Your task to perform on an android device: clear history in the chrome app Image 0: 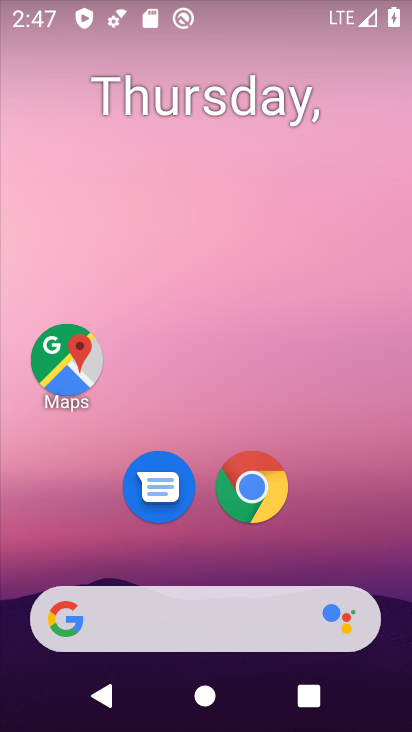
Step 0: drag from (366, 465) to (332, 44)
Your task to perform on an android device: clear history in the chrome app Image 1: 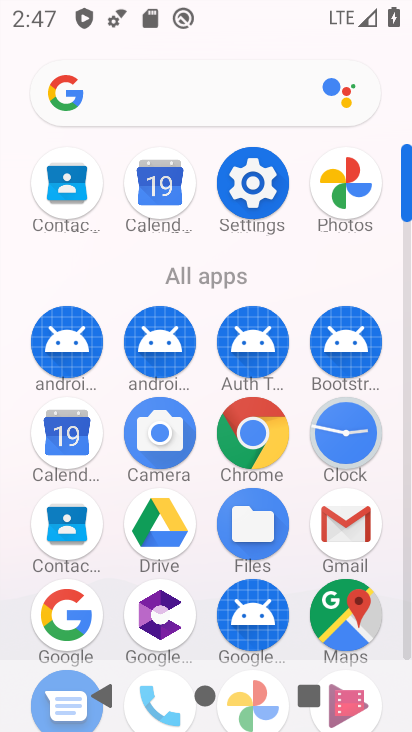
Step 1: click (258, 417)
Your task to perform on an android device: clear history in the chrome app Image 2: 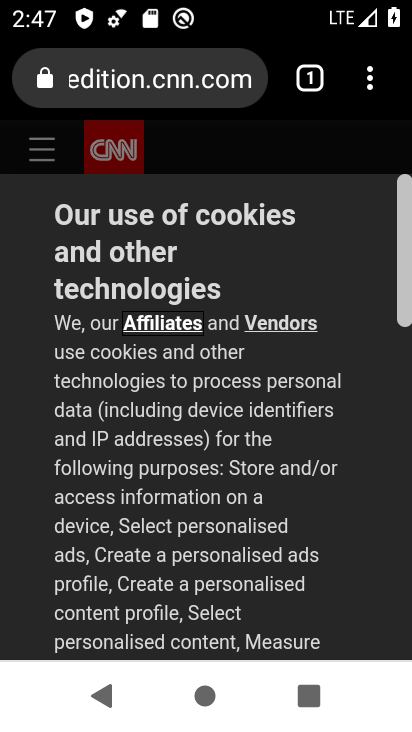
Step 2: click (369, 76)
Your task to perform on an android device: clear history in the chrome app Image 3: 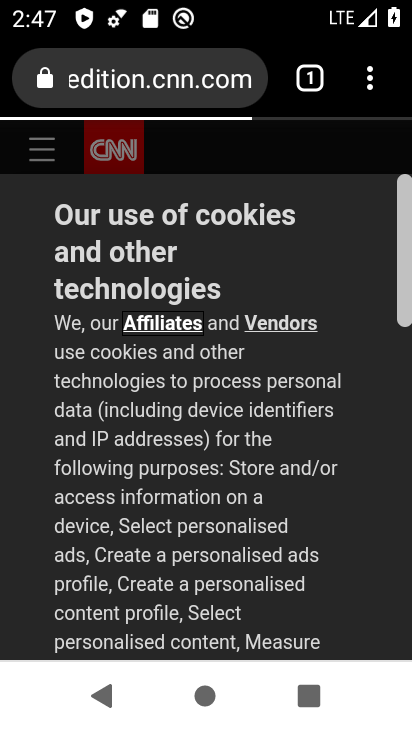
Step 3: drag from (369, 76) to (117, 464)
Your task to perform on an android device: clear history in the chrome app Image 4: 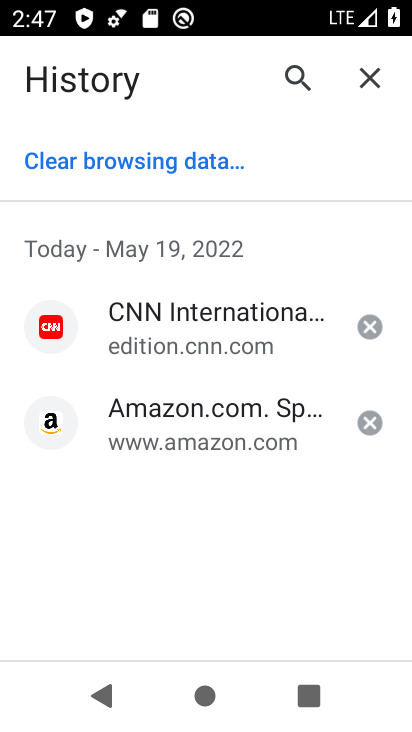
Step 4: click (151, 159)
Your task to perform on an android device: clear history in the chrome app Image 5: 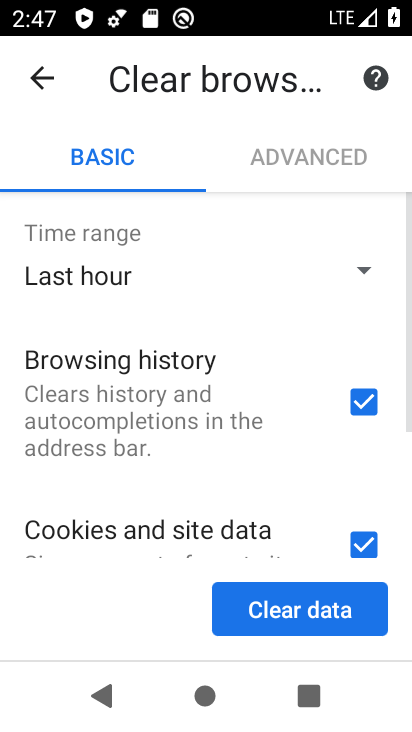
Step 5: click (283, 603)
Your task to perform on an android device: clear history in the chrome app Image 6: 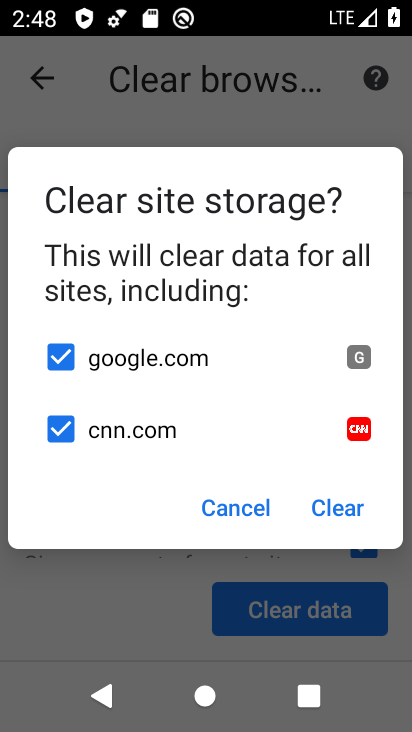
Step 6: click (338, 504)
Your task to perform on an android device: clear history in the chrome app Image 7: 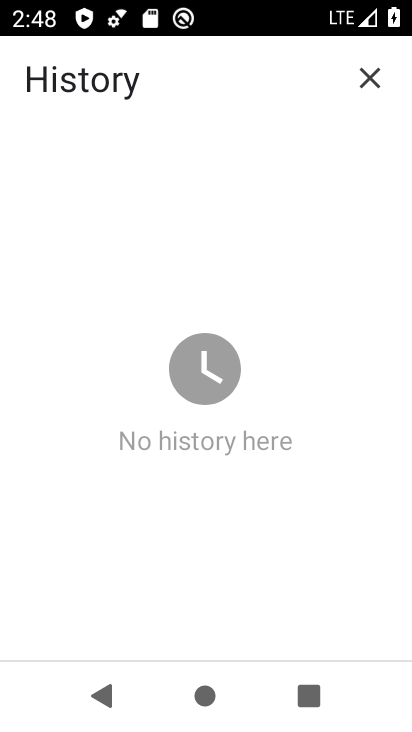
Step 7: task complete